Your task to perform on an android device: What's the weather? Image 0: 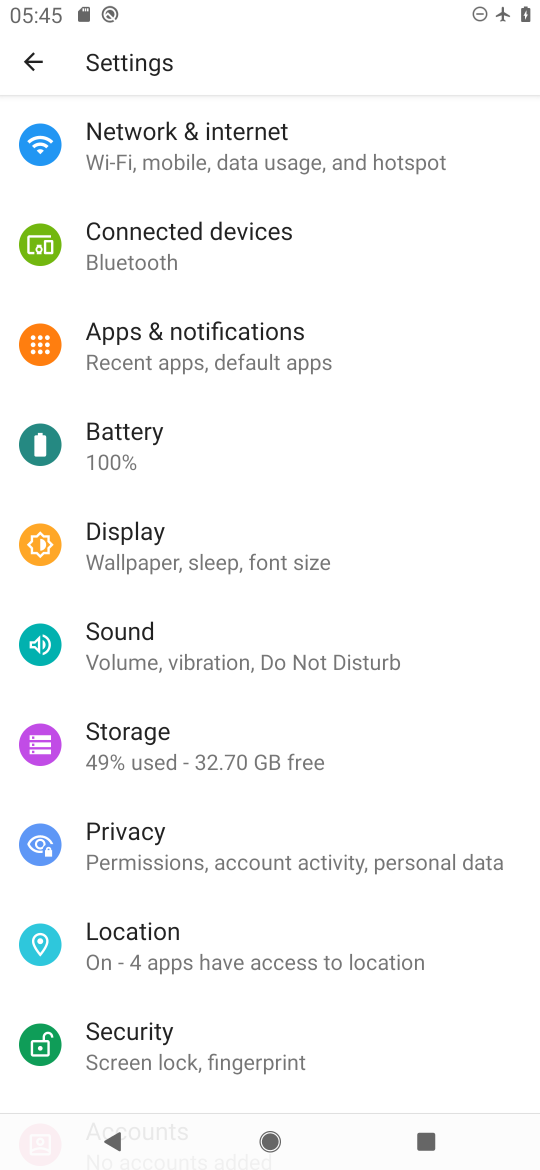
Step 0: press home button
Your task to perform on an android device: What's the weather? Image 1: 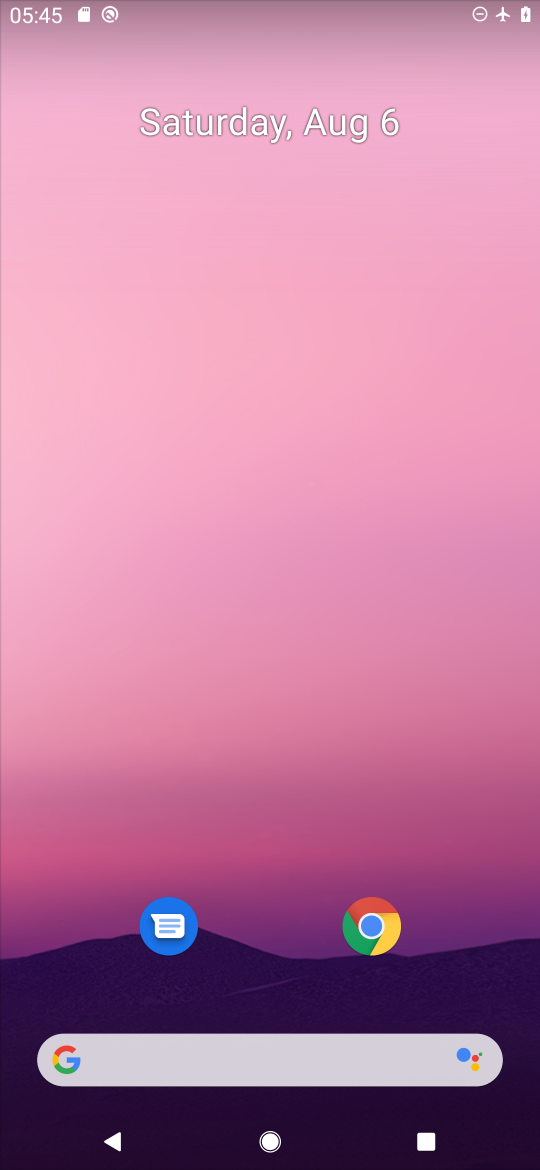
Step 1: drag from (295, 851) to (214, 133)
Your task to perform on an android device: What's the weather? Image 2: 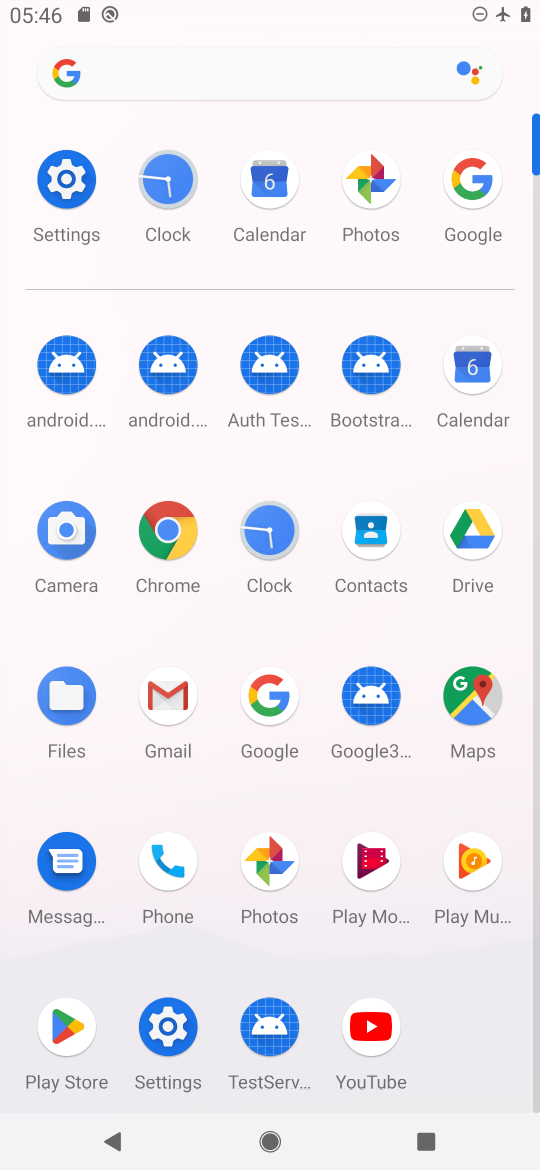
Step 2: click (281, 707)
Your task to perform on an android device: What's the weather? Image 3: 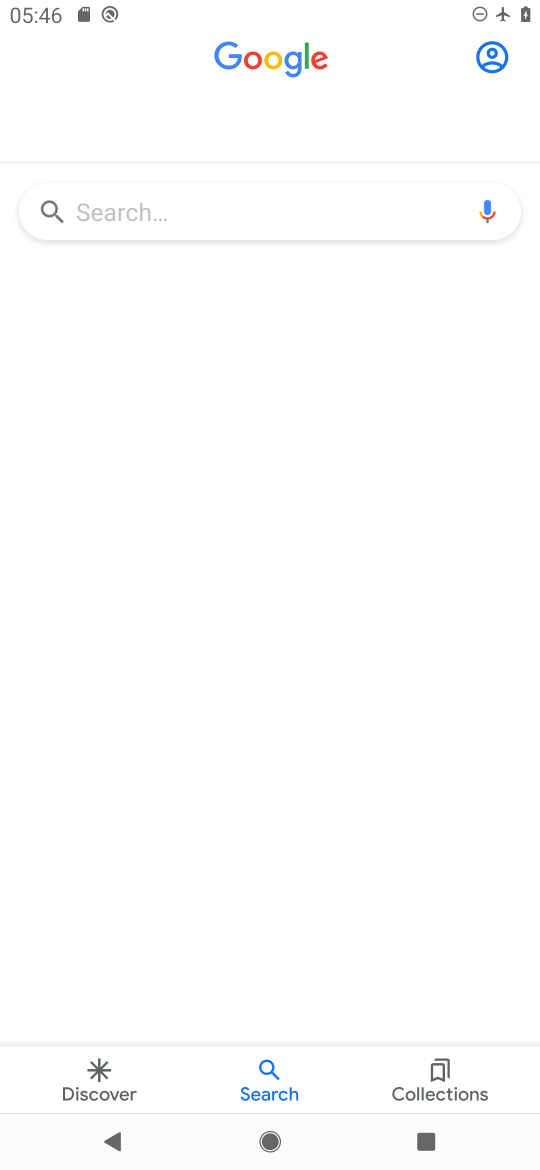
Step 3: click (116, 217)
Your task to perform on an android device: What's the weather? Image 4: 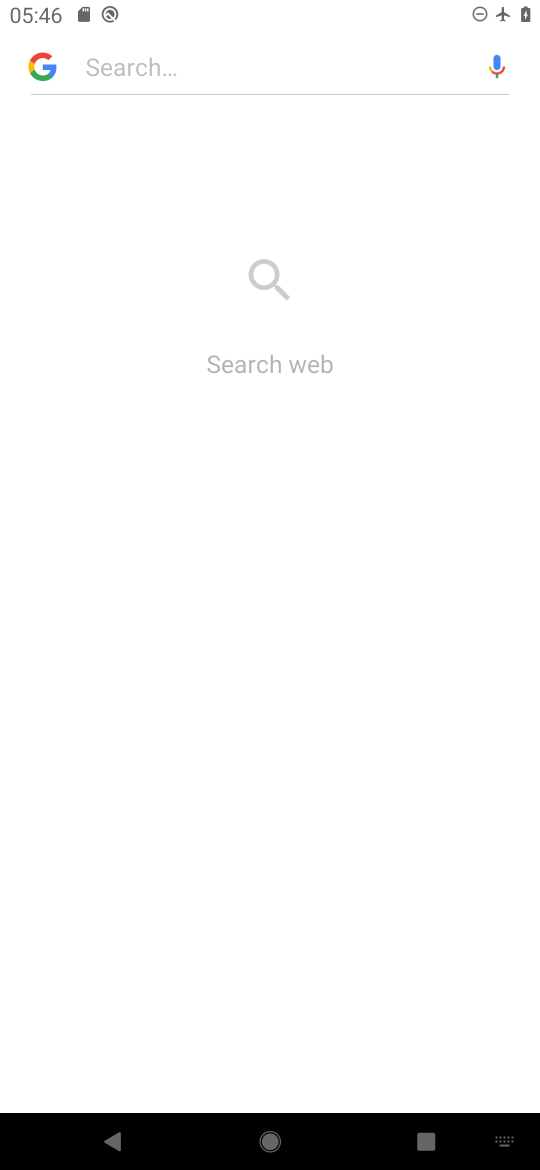
Step 4: type "weather"
Your task to perform on an android device: What's the weather? Image 5: 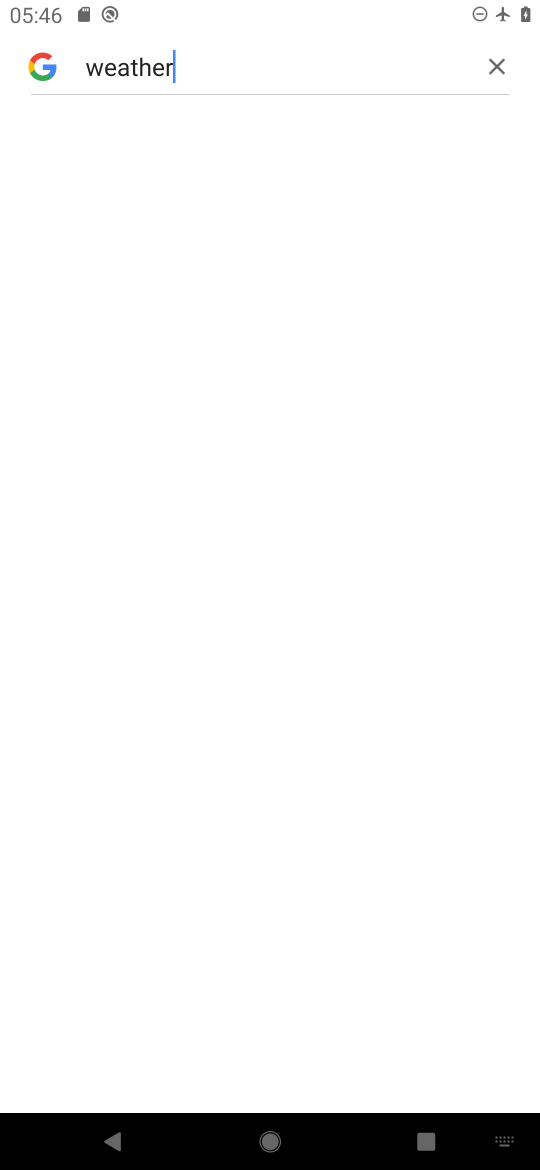
Step 5: type ""
Your task to perform on an android device: What's the weather? Image 6: 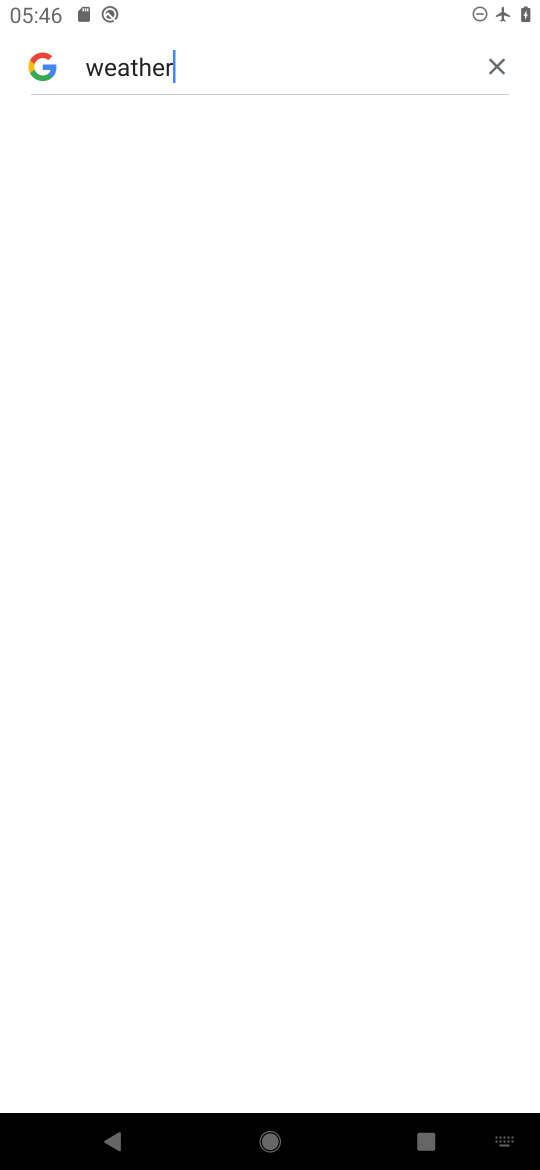
Step 6: task complete